Your task to perform on an android device: turn off improve location accuracy Image 0: 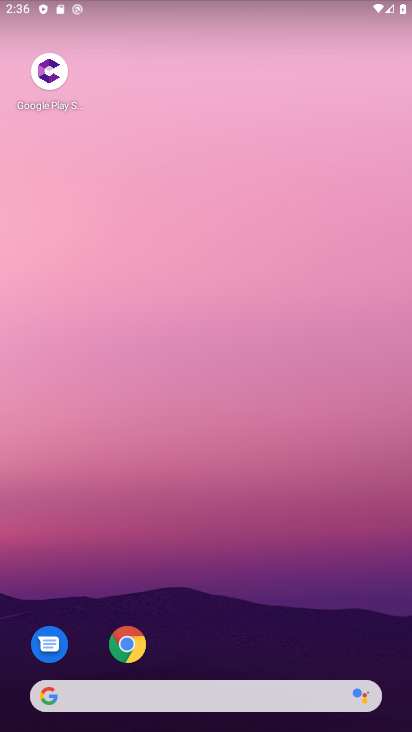
Step 0: drag from (209, 640) to (250, 114)
Your task to perform on an android device: turn off improve location accuracy Image 1: 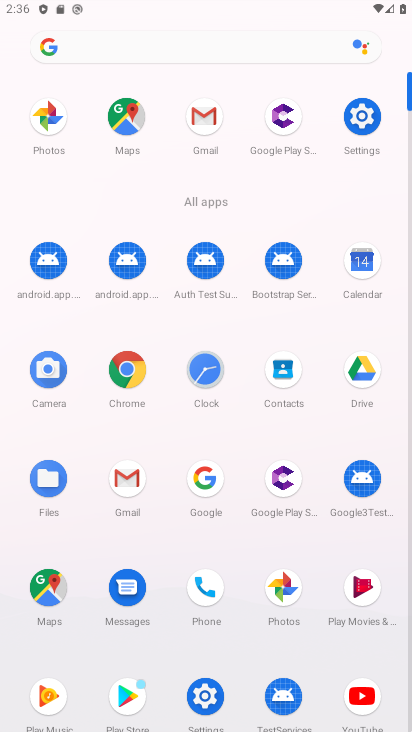
Step 1: click (199, 698)
Your task to perform on an android device: turn off improve location accuracy Image 2: 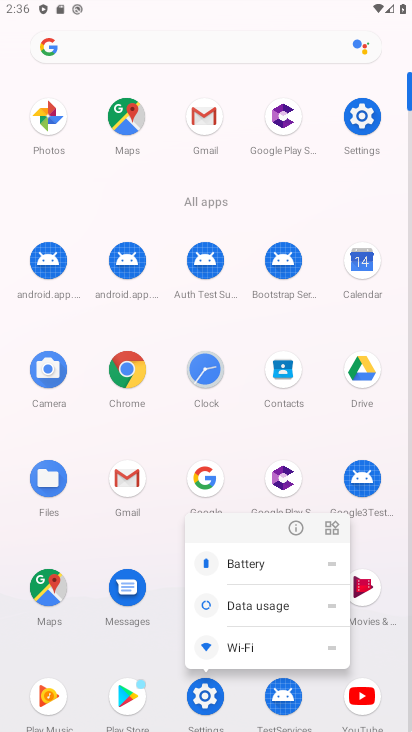
Step 2: click (294, 521)
Your task to perform on an android device: turn off improve location accuracy Image 3: 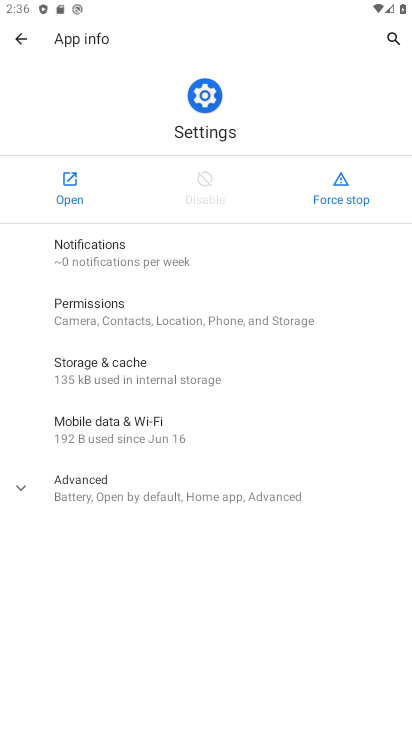
Step 3: click (57, 187)
Your task to perform on an android device: turn off improve location accuracy Image 4: 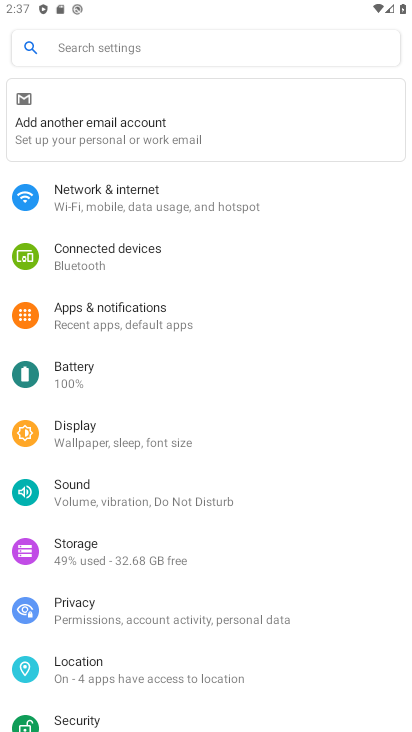
Step 4: drag from (155, 630) to (190, 402)
Your task to perform on an android device: turn off improve location accuracy Image 5: 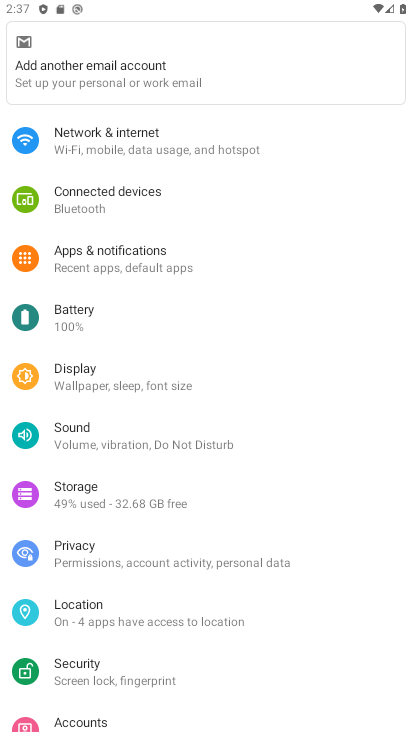
Step 5: drag from (168, 546) to (189, 315)
Your task to perform on an android device: turn off improve location accuracy Image 6: 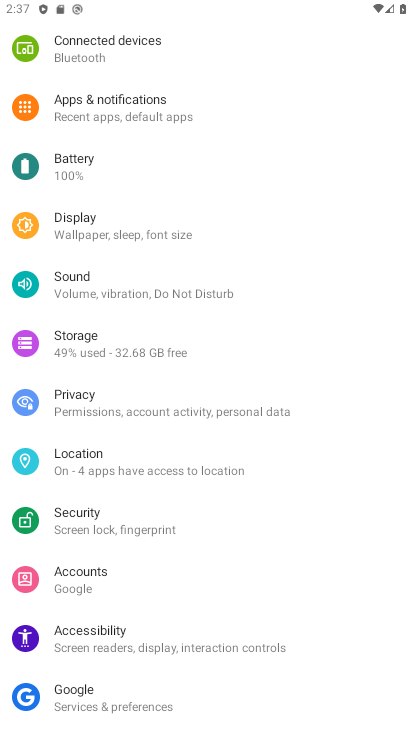
Step 6: click (117, 464)
Your task to perform on an android device: turn off improve location accuracy Image 7: 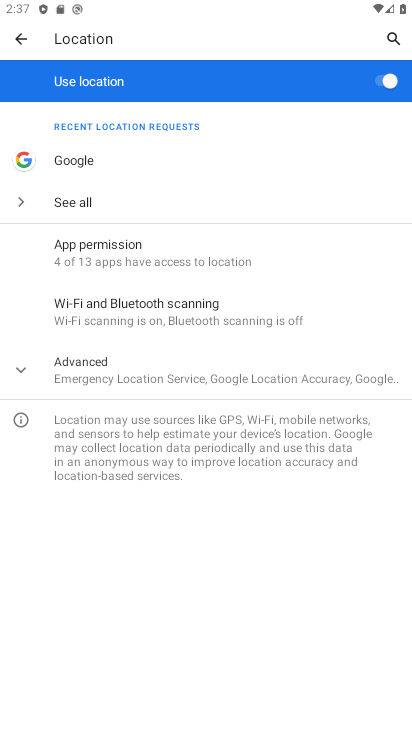
Step 7: click (136, 384)
Your task to perform on an android device: turn off improve location accuracy Image 8: 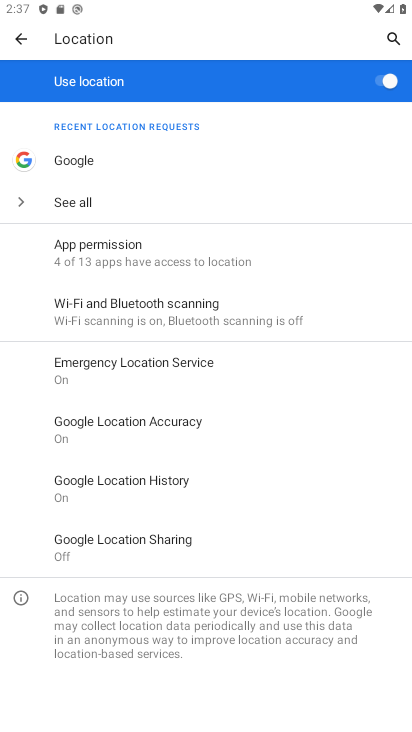
Step 8: click (209, 426)
Your task to perform on an android device: turn off improve location accuracy Image 9: 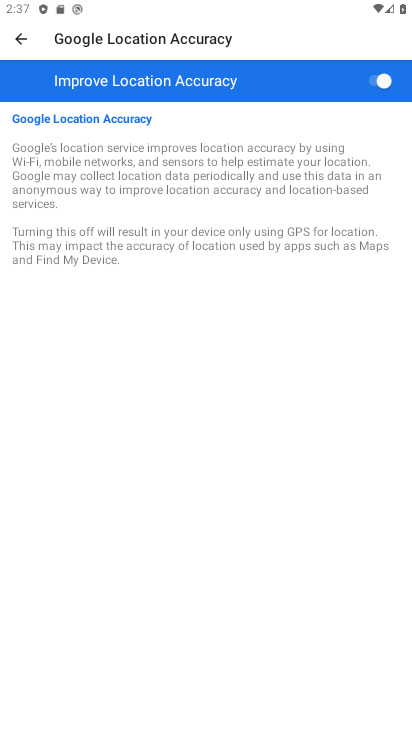
Step 9: click (380, 90)
Your task to perform on an android device: turn off improve location accuracy Image 10: 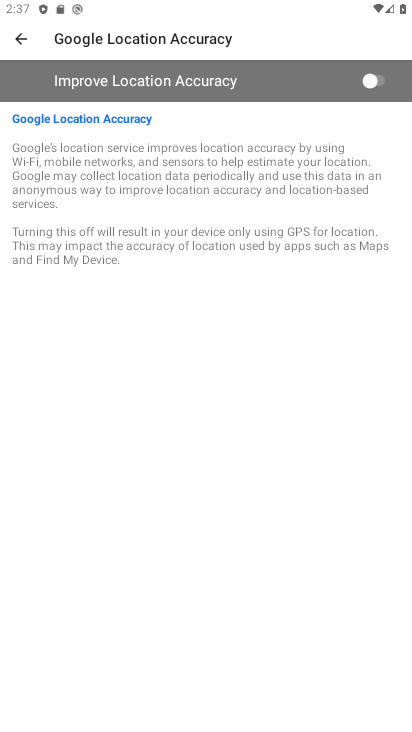
Step 10: task complete